Your task to perform on an android device: Search for Italian restaurants on Maps Image 0: 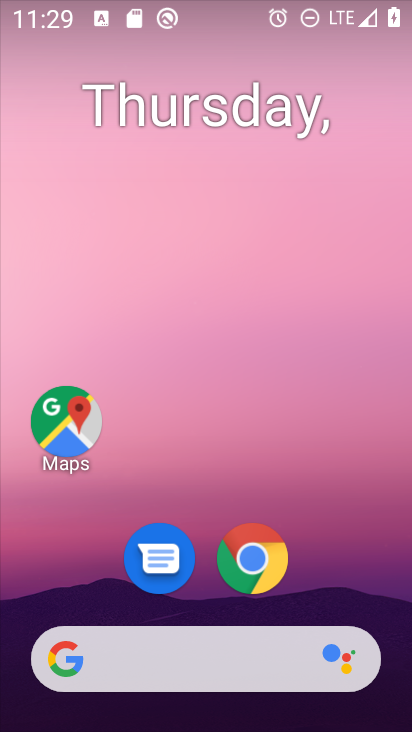
Step 0: click (65, 423)
Your task to perform on an android device: Search for Italian restaurants on Maps Image 1: 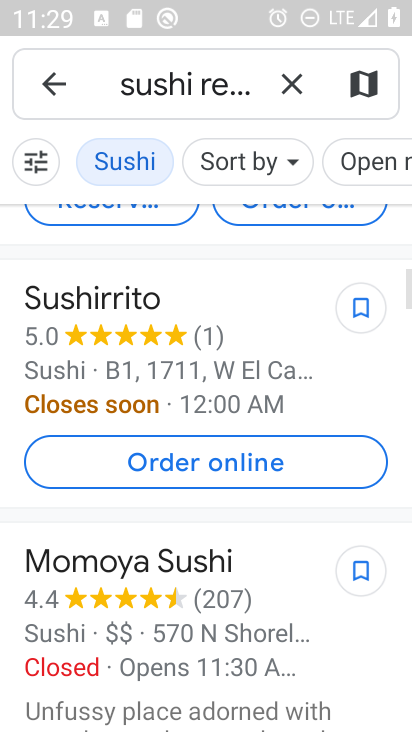
Step 1: click (292, 76)
Your task to perform on an android device: Search for Italian restaurants on Maps Image 2: 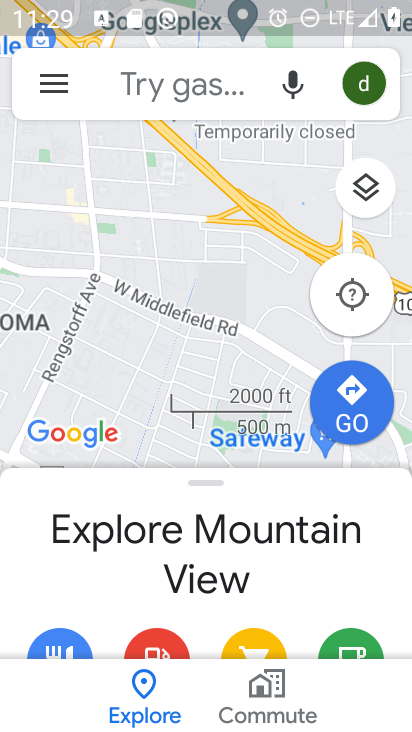
Step 2: click (155, 89)
Your task to perform on an android device: Search for Italian restaurants on Maps Image 3: 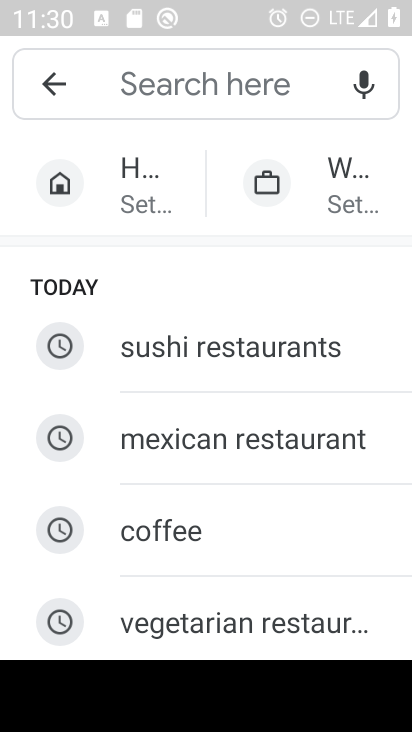
Step 3: type "italian restaurants"
Your task to perform on an android device: Search for Italian restaurants on Maps Image 4: 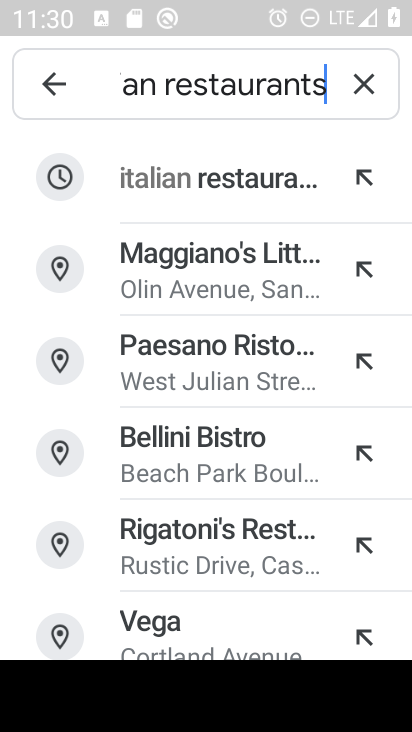
Step 4: click (176, 188)
Your task to perform on an android device: Search for Italian restaurants on Maps Image 5: 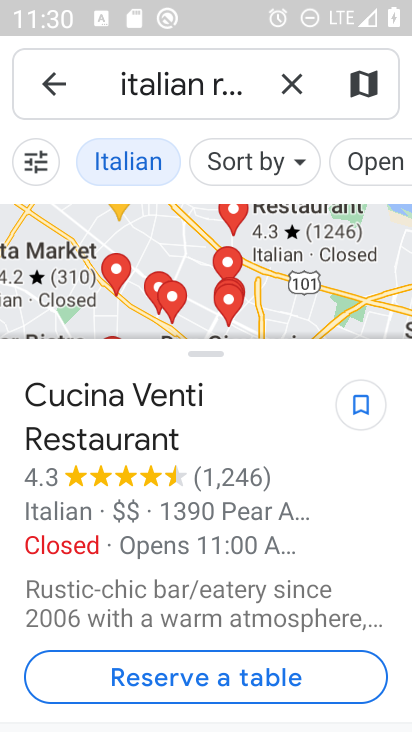
Step 5: task complete